Your task to perform on an android device: Add "razer blackwidow" to the cart on amazon.com, then select checkout. Image 0: 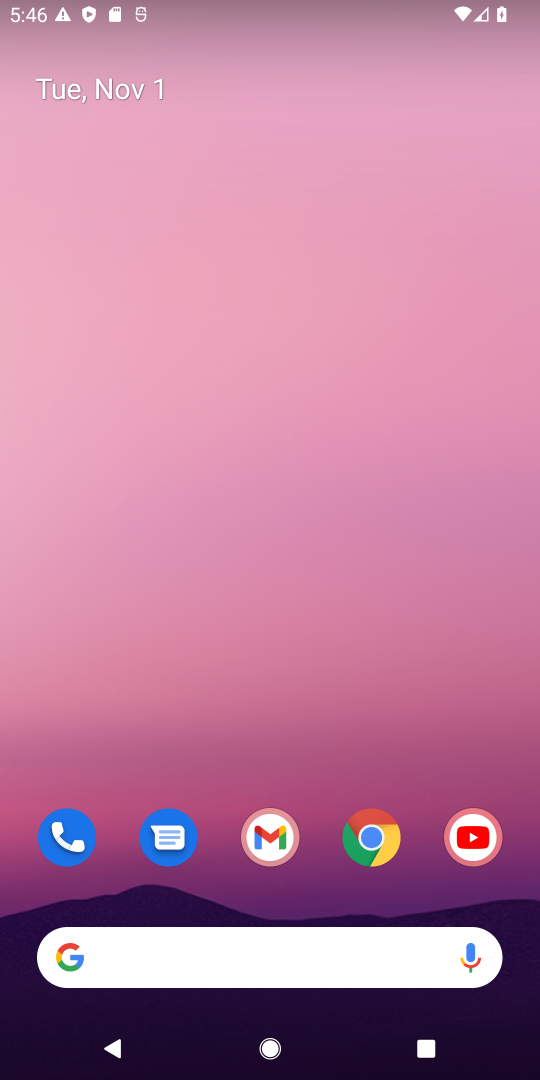
Step 0: drag from (339, 1023) to (331, 214)
Your task to perform on an android device: Add "razer blackwidow" to the cart on amazon.com, then select checkout. Image 1: 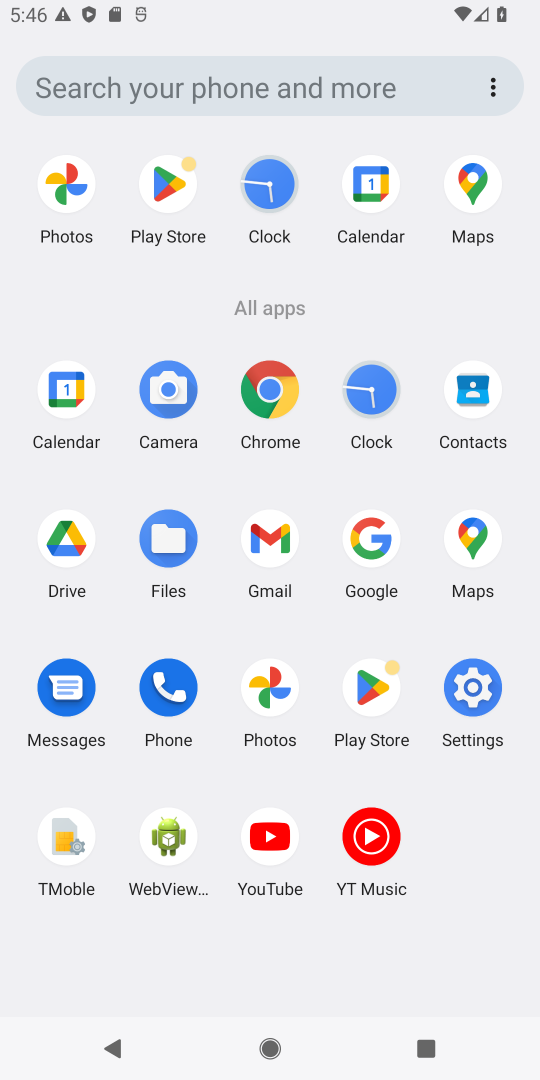
Step 1: click (271, 386)
Your task to perform on an android device: Add "razer blackwidow" to the cart on amazon.com, then select checkout. Image 2: 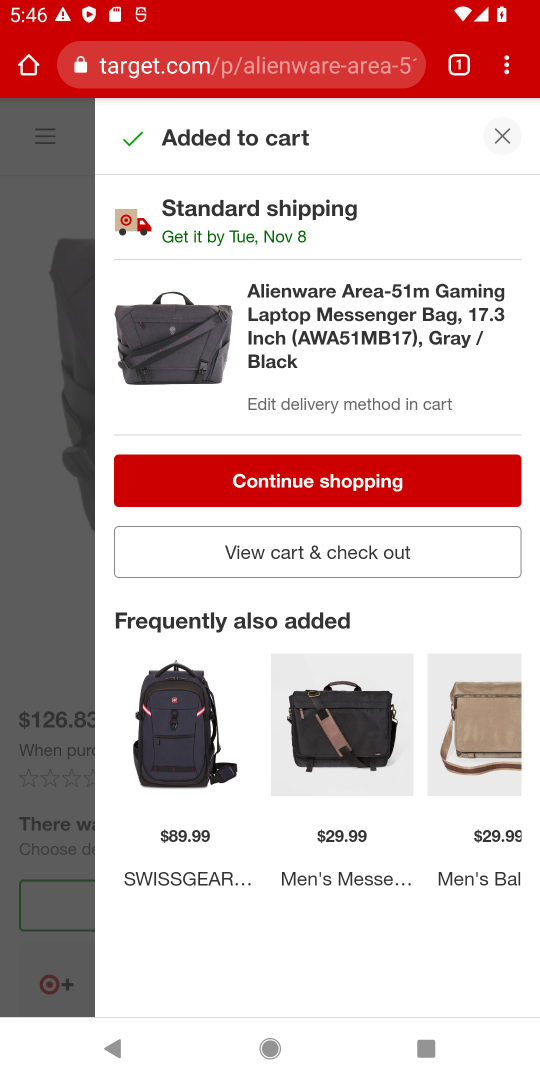
Step 2: click (136, 67)
Your task to perform on an android device: Add "razer blackwidow" to the cart on amazon.com, then select checkout. Image 3: 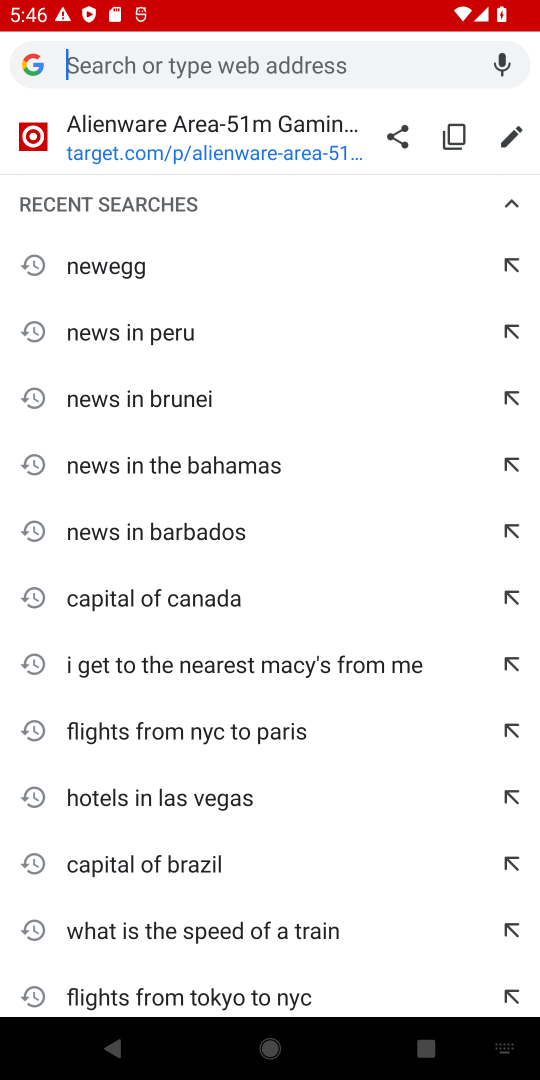
Step 3: type "amazon.com"
Your task to perform on an android device: Add "razer blackwidow" to the cart on amazon.com, then select checkout. Image 4: 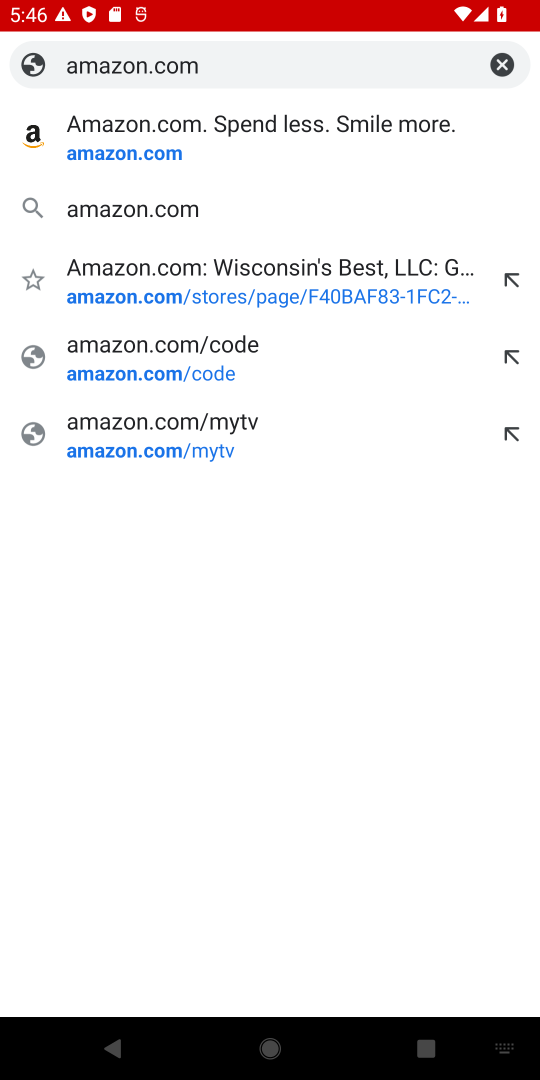
Step 4: click (154, 145)
Your task to perform on an android device: Add "razer blackwidow" to the cart on amazon.com, then select checkout. Image 5: 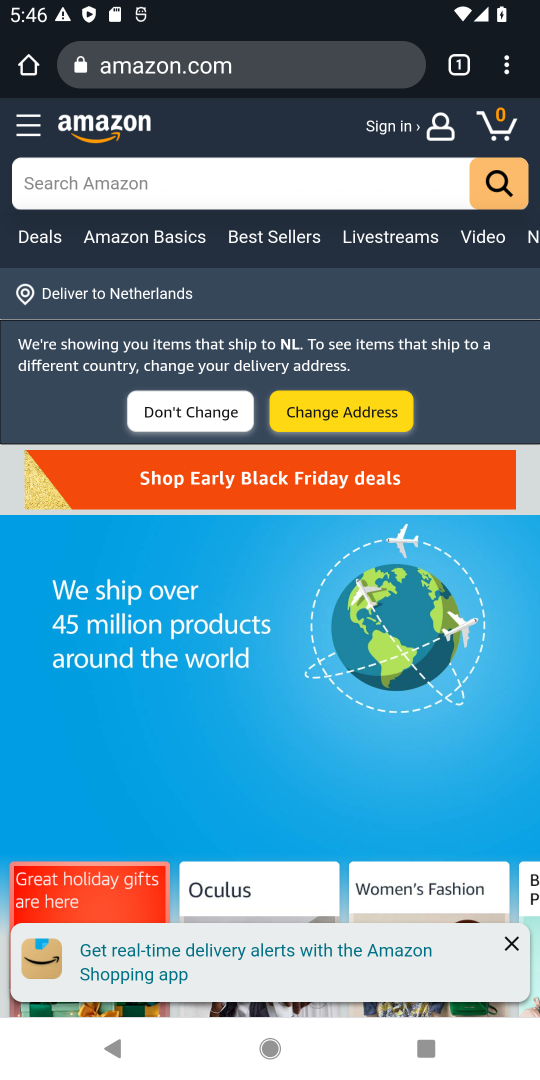
Step 5: click (311, 183)
Your task to perform on an android device: Add "razer blackwidow" to the cart on amazon.com, then select checkout. Image 6: 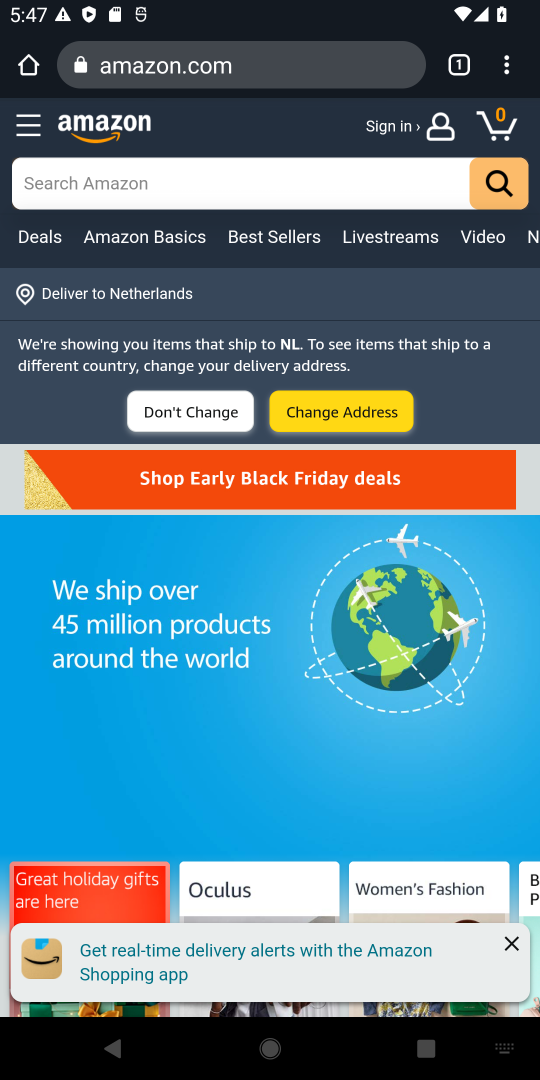
Step 6: type "razer blackwidow"
Your task to perform on an android device: Add "razer blackwidow" to the cart on amazon.com, then select checkout. Image 7: 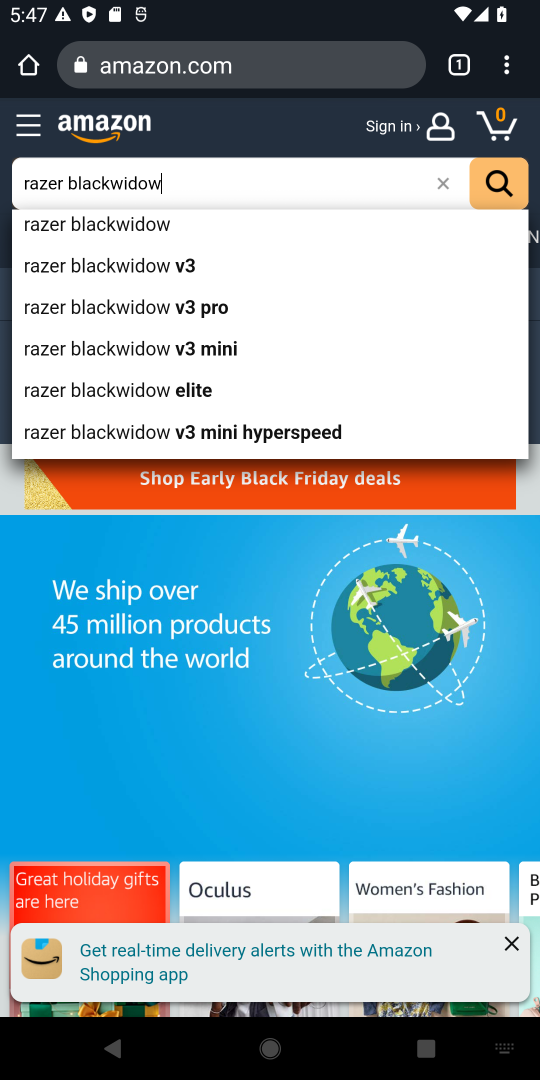
Step 7: click (120, 217)
Your task to perform on an android device: Add "razer blackwidow" to the cart on amazon.com, then select checkout. Image 8: 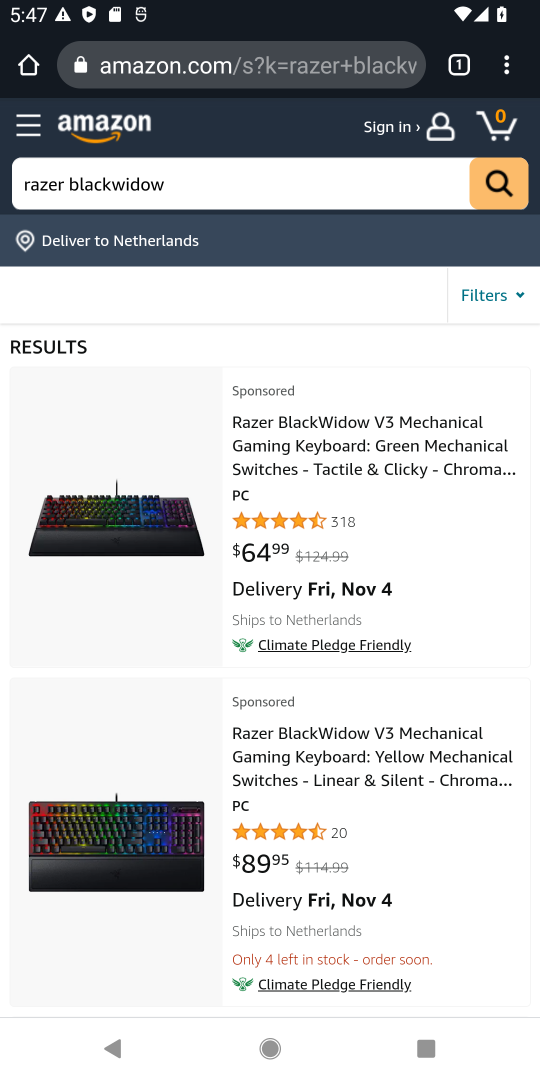
Step 8: click (168, 455)
Your task to perform on an android device: Add "razer blackwidow" to the cart on amazon.com, then select checkout. Image 9: 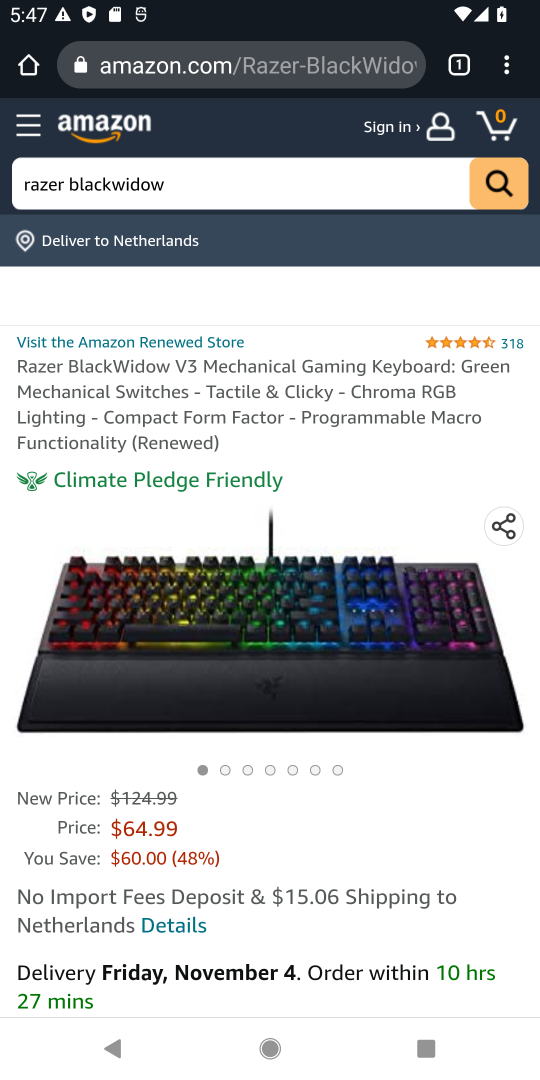
Step 9: drag from (315, 875) to (375, 254)
Your task to perform on an android device: Add "razer blackwidow" to the cart on amazon.com, then select checkout. Image 10: 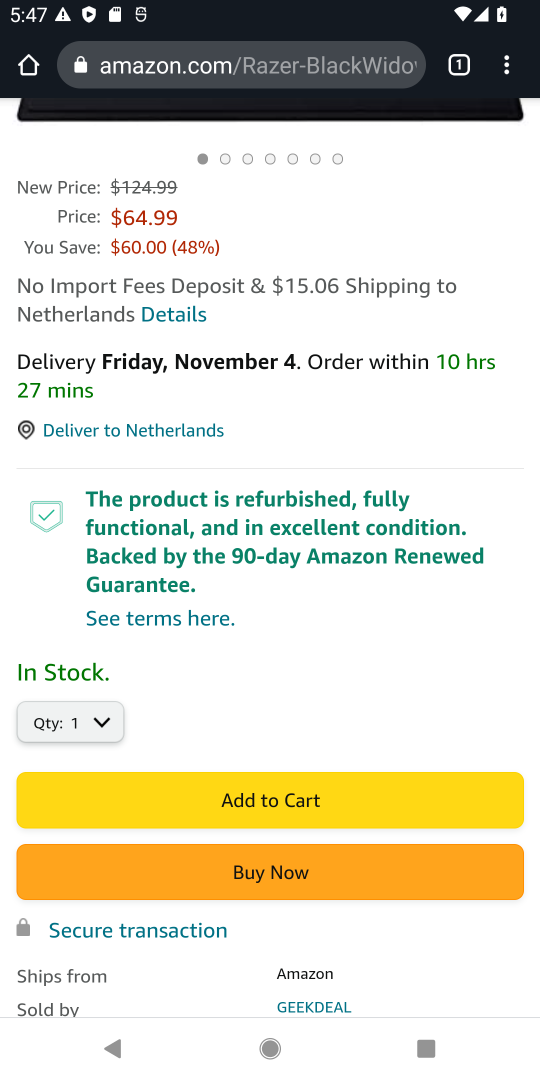
Step 10: click (281, 798)
Your task to perform on an android device: Add "razer blackwidow" to the cart on amazon.com, then select checkout. Image 11: 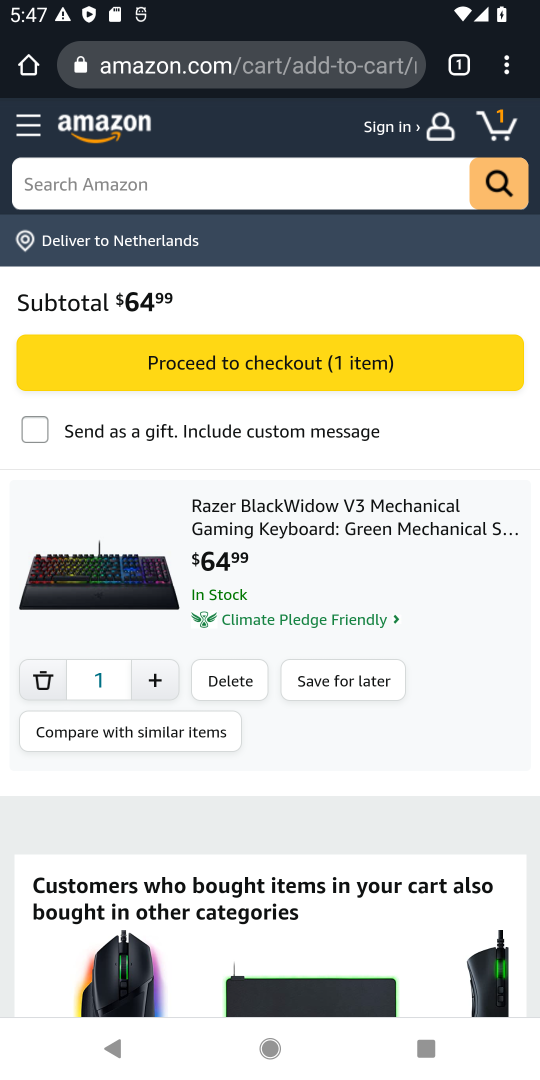
Step 11: task complete